Your task to perform on an android device: toggle notifications settings in the gmail app Image 0: 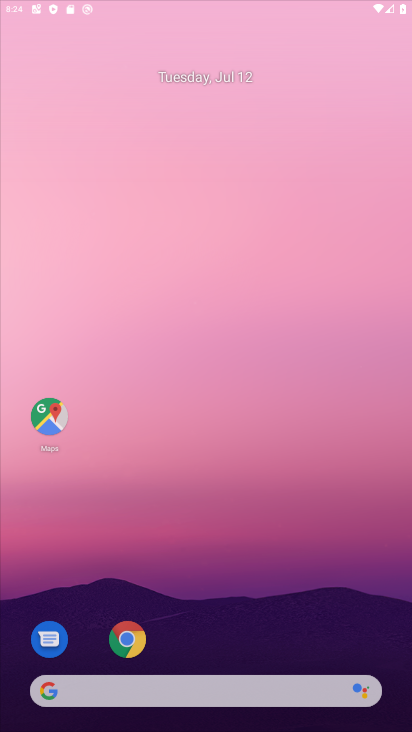
Step 0: click (255, 4)
Your task to perform on an android device: toggle notifications settings in the gmail app Image 1: 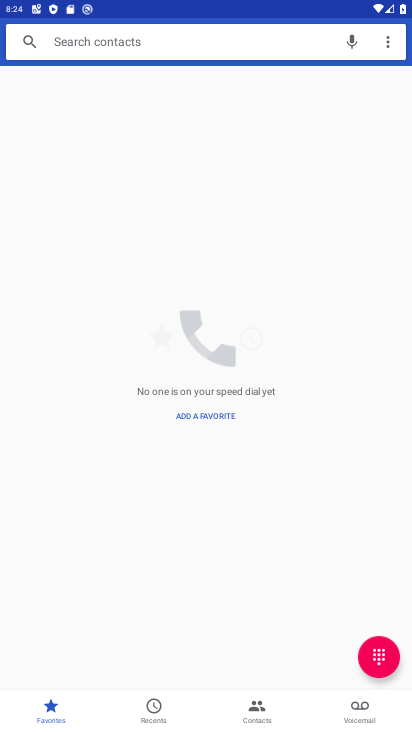
Step 1: press home button
Your task to perform on an android device: toggle notifications settings in the gmail app Image 2: 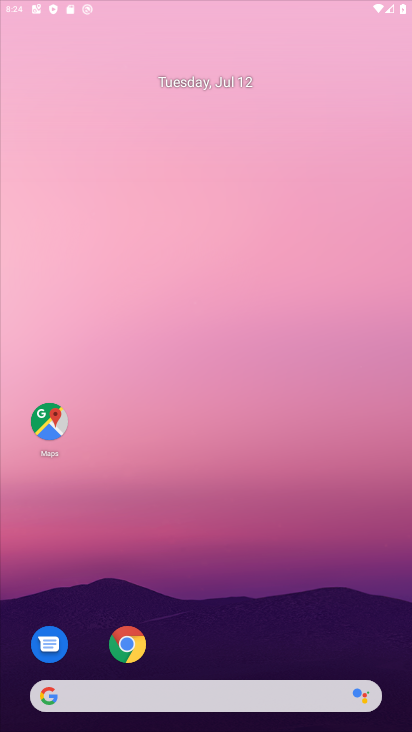
Step 2: drag from (165, 599) to (232, 0)
Your task to perform on an android device: toggle notifications settings in the gmail app Image 3: 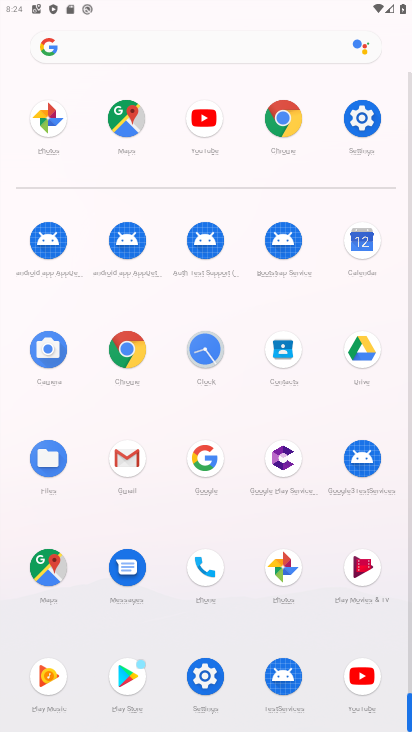
Step 3: click (119, 466)
Your task to perform on an android device: toggle notifications settings in the gmail app Image 4: 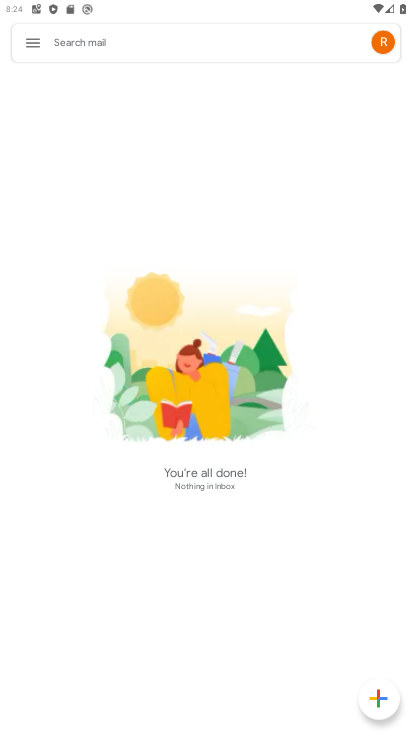
Step 4: drag from (109, 628) to (187, 207)
Your task to perform on an android device: toggle notifications settings in the gmail app Image 5: 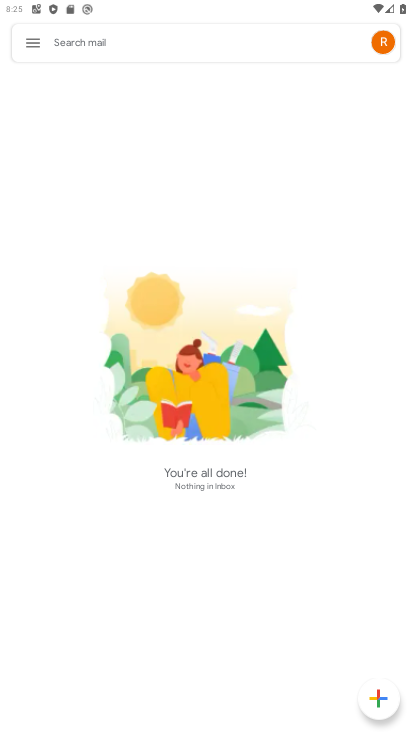
Step 5: click (23, 43)
Your task to perform on an android device: toggle notifications settings in the gmail app Image 6: 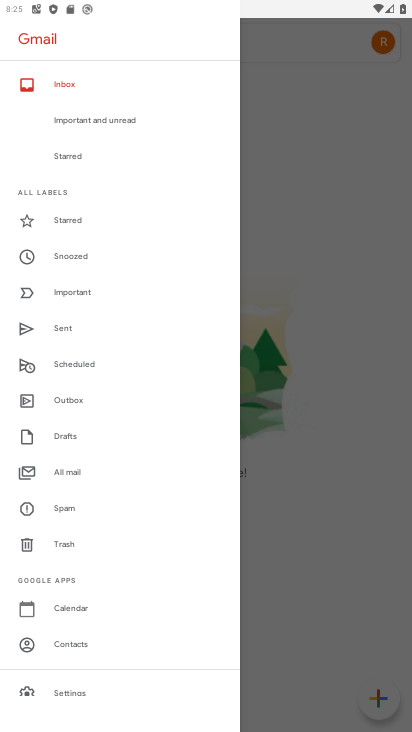
Step 6: click (91, 691)
Your task to perform on an android device: toggle notifications settings in the gmail app Image 7: 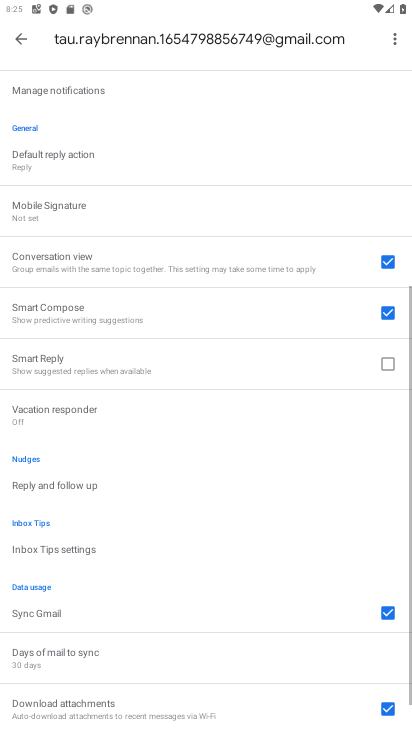
Step 7: drag from (182, 608) to (234, 234)
Your task to perform on an android device: toggle notifications settings in the gmail app Image 8: 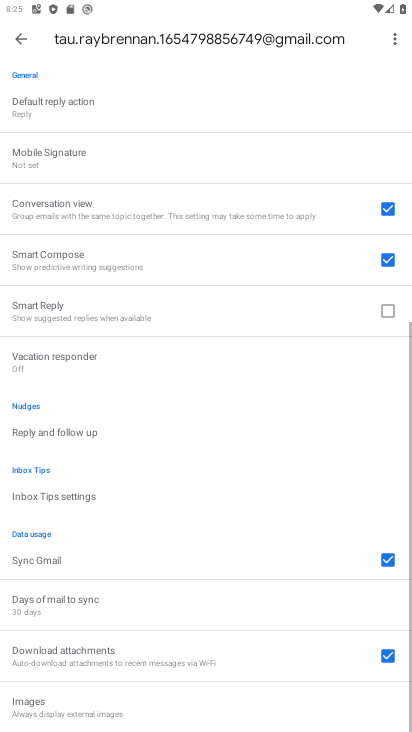
Step 8: drag from (134, 635) to (206, 206)
Your task to perform on an android device: toggle notifications settings in the gmail app Image 9: 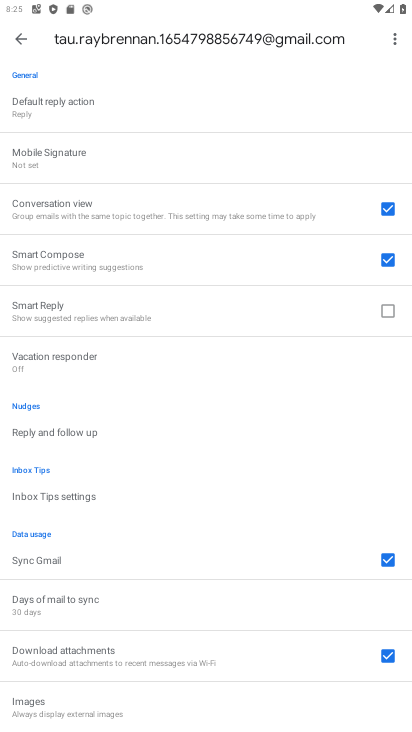
Step 9: drag from (174, 216) to (406, 692)
Your task to perform on an android device: toggle notifications settings in the gmail app Image 10: 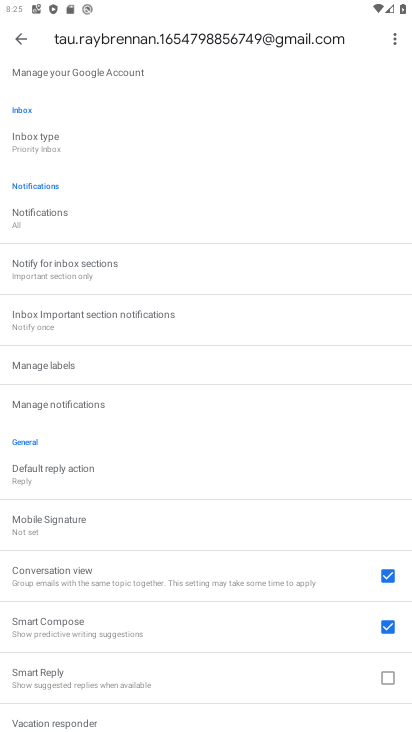
Step 10: click (38, 410)
Your task to perform on an android device: toggle notifications settings in the gmail app Image 11: 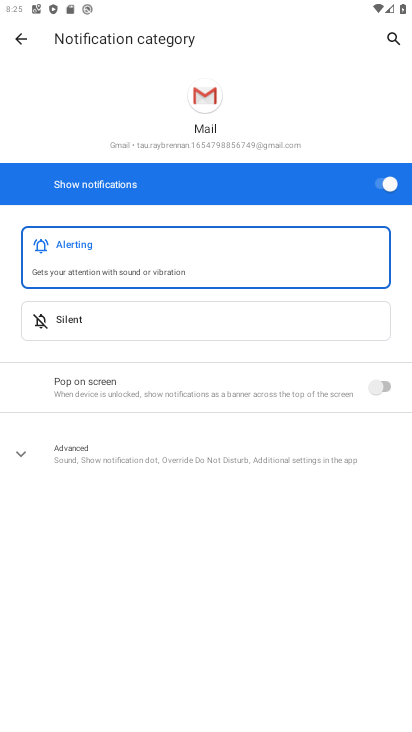
Step 11: click (378, 187)
Your task to perform on an android device: toggle notifications settings in the gmail app Image 12: 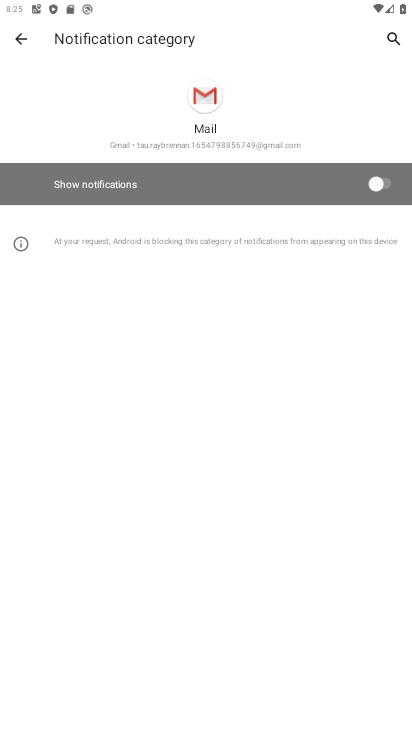
Step 12: task complete